Your task to perform on an android device: Show me the best basketball shoes on Nike.com Image 0: 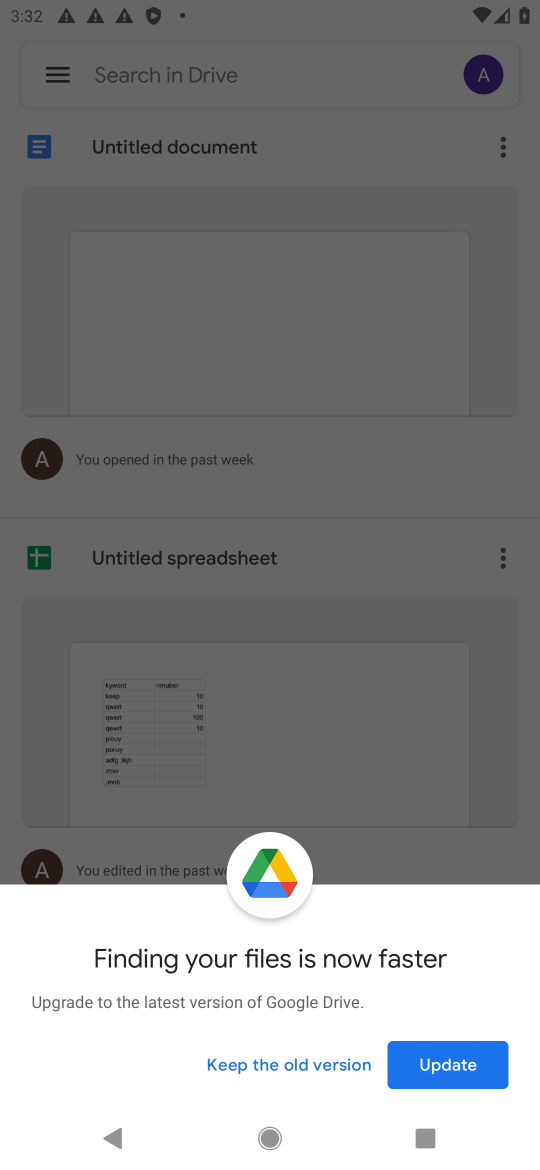
Step 0: press home button
Your task to perform on an android device: Show me the best basketball shoes on Nike.com Image 1: 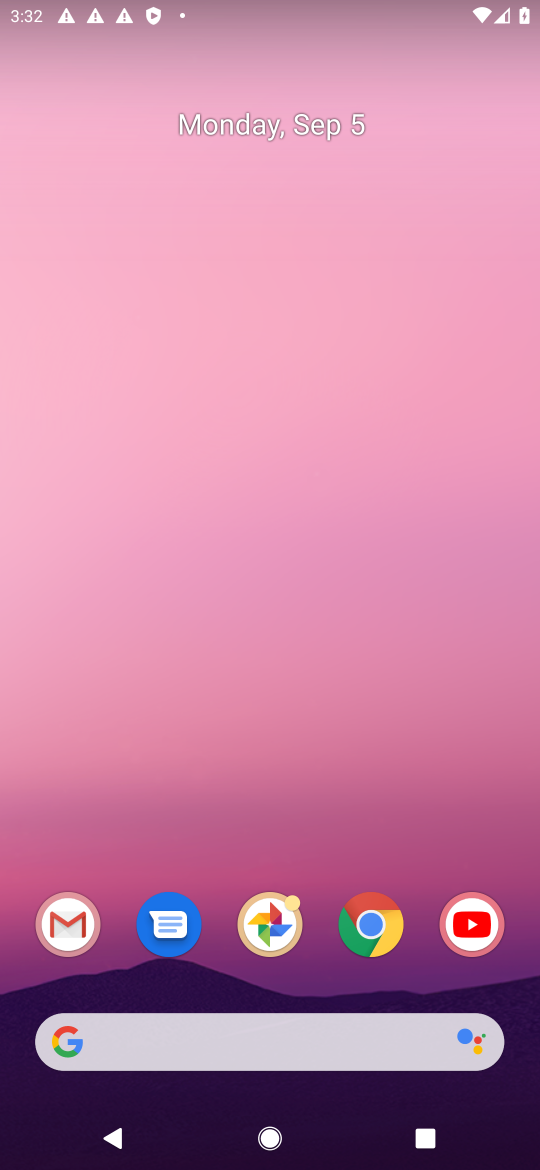
Step 1: click (383, 918)
Your task to perform on an android device: Show me the best basketball shoes on Nike.com Image 2: 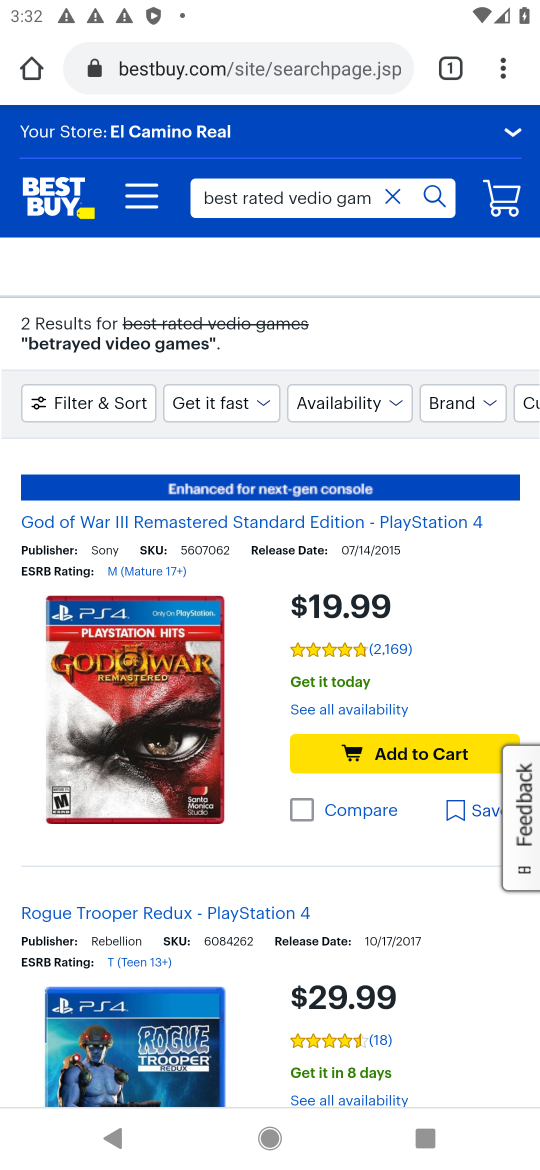
Step 2: click (262, 70)
Your task to perform on an android device: Show me the best basketball shoes on Nike.com Image 3: 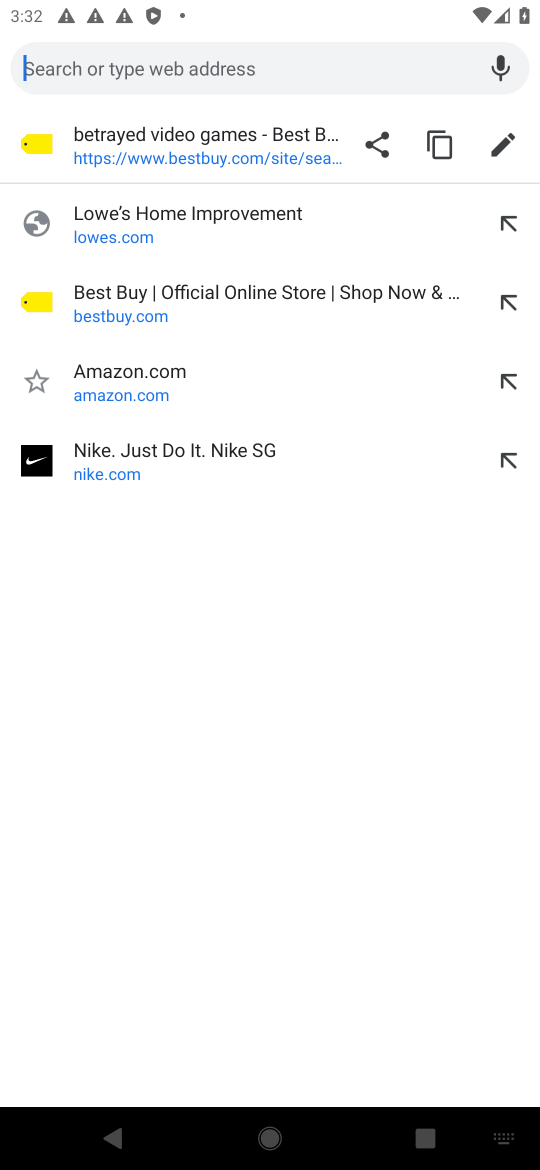
Step 3: click (36, 468)
Your task to perform on an android device: Show me the best basketball shoes on Nike.com Image 4: 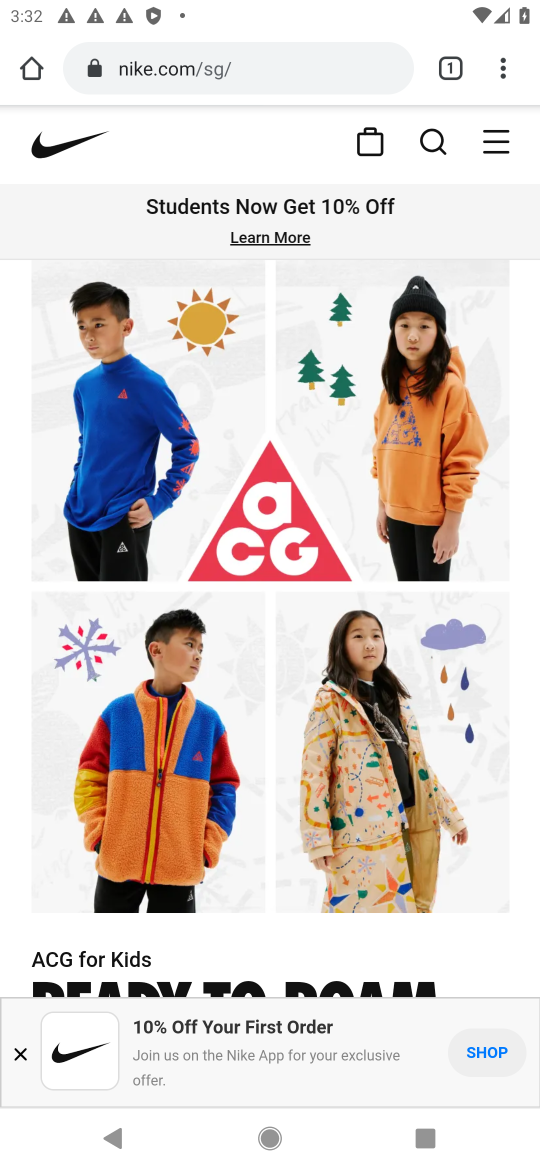
Step 4: click (425, 151)
Your task to perform on an android device: Show me the best basketball shoes on Nike.com Image 5: 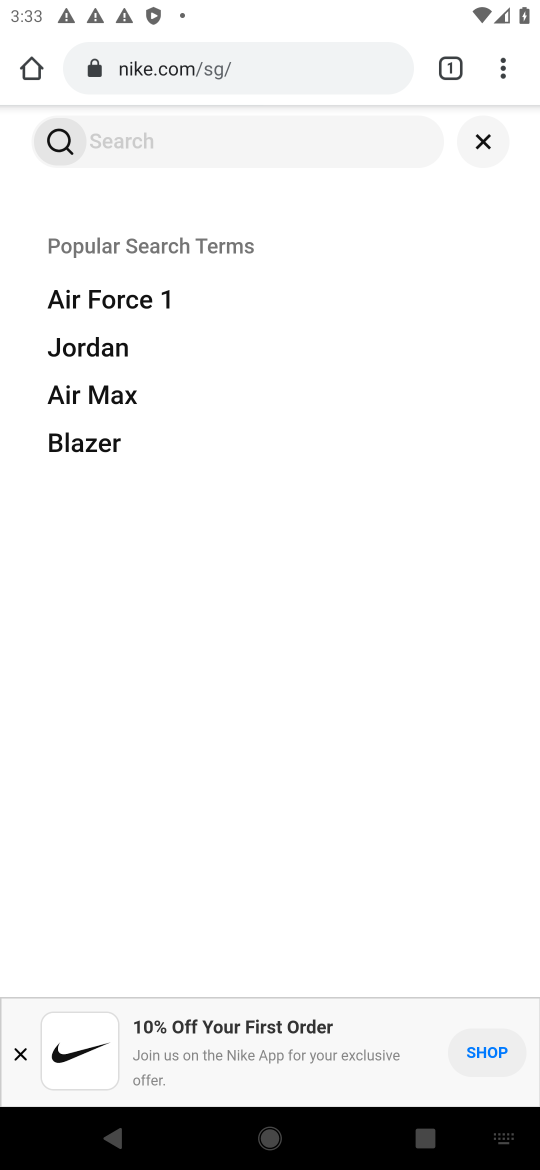
Step 5: type "best basketball shoes"
Your task to perform on an android device: Show me the best basketball shoes on Nike.com Image 6: 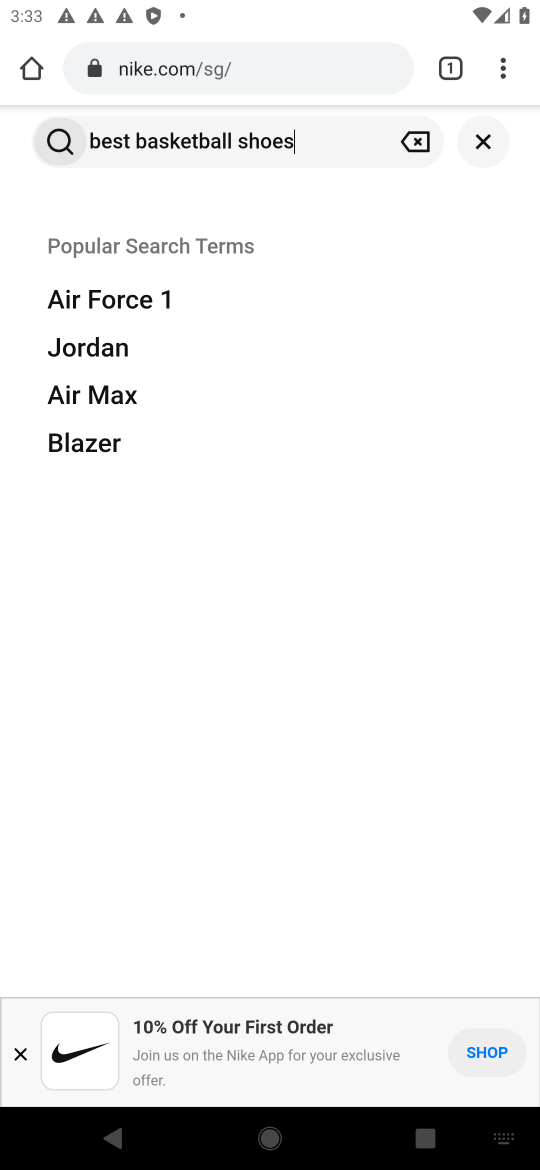
Step 6: click (46, 145)
Your task to perform on an android device: Show me the best basketball shoes on Nike.com Image 7: 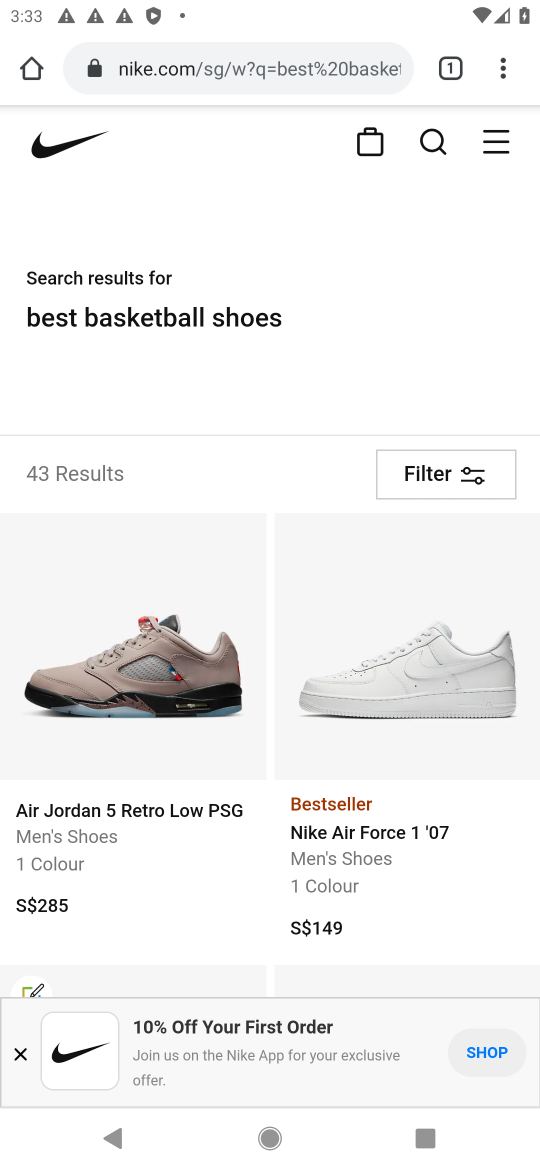
Step 7: task complete